Your task to perform on an android device: What's on my calendar today? Image 0: 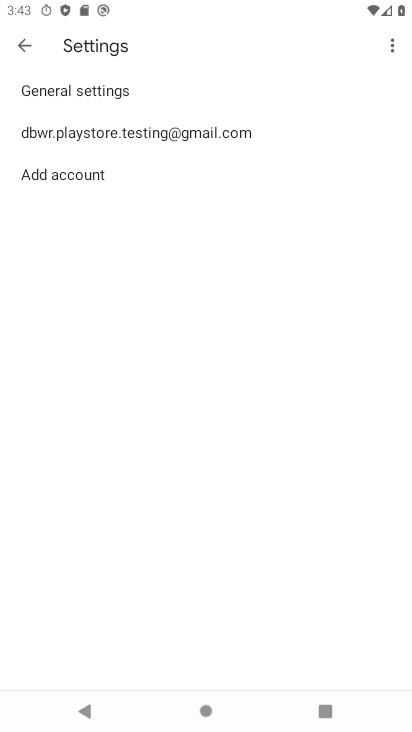
Step 0: press home button
Your task to perform on an android device: What's on my calendar today? Image 1: 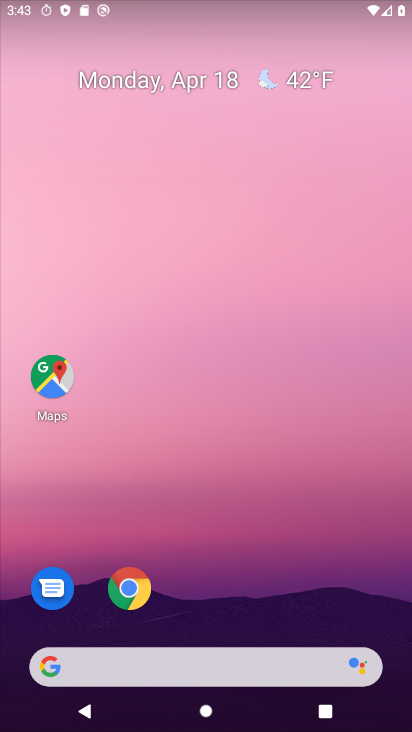
Step 1: click (144, 69)
Your task to perform on an android device: What's on my calendar today? Image 2: 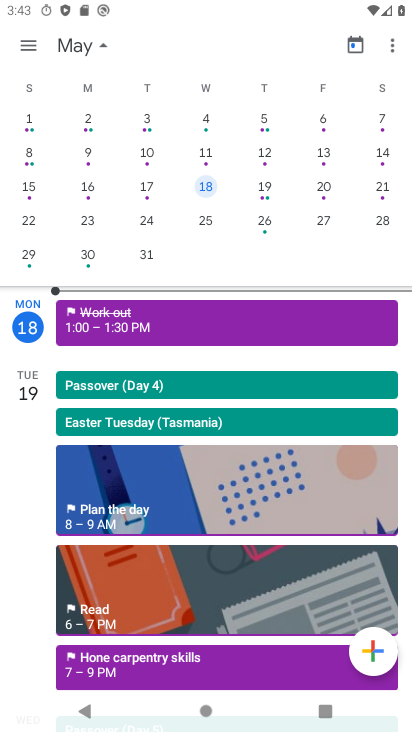
Step 2: click (90, 53)
Your task to perform on an android device: What's on my calendar today? Image 3: 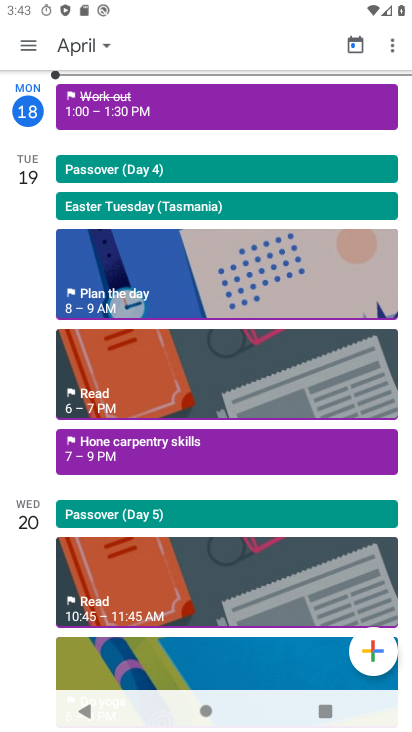
Step 3: task complete